Your task to perform on an android device: Turn on the flashlight Image 0: 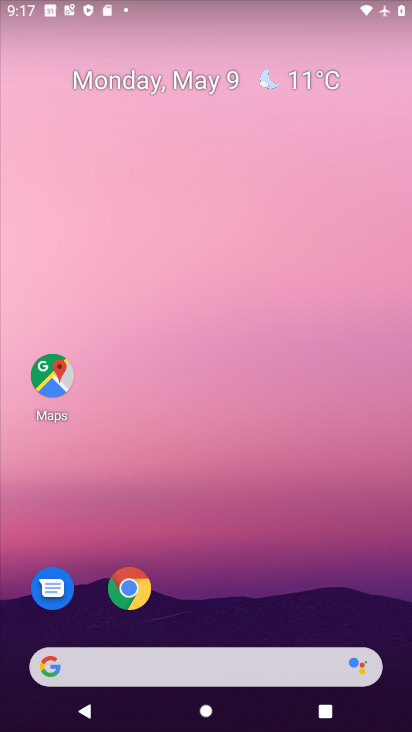
Step 0: drag from (281, 6) to (243, 514)
Your task to perform on an android device: Turn on the flashlight Image 1: 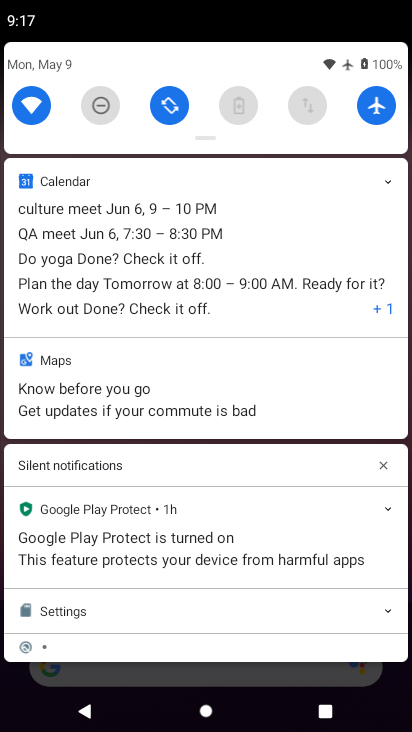
Step 1: task complete